Your task to perform on an android device: Is it going to rain today? Image 0: 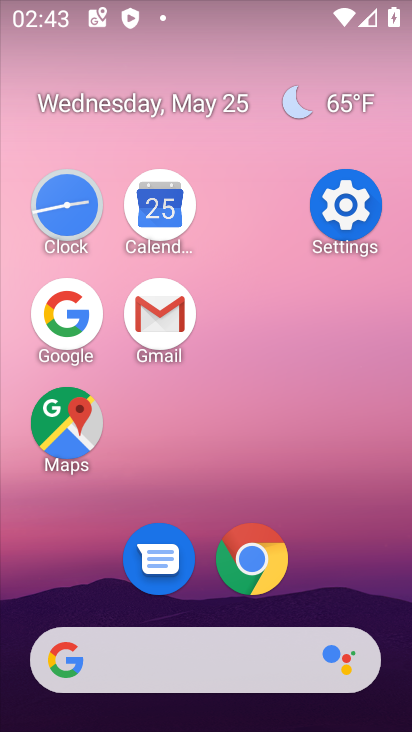
Step 0: click (63, 317)
Your task to perform on an android device: Is it going to rain today? Image 1: 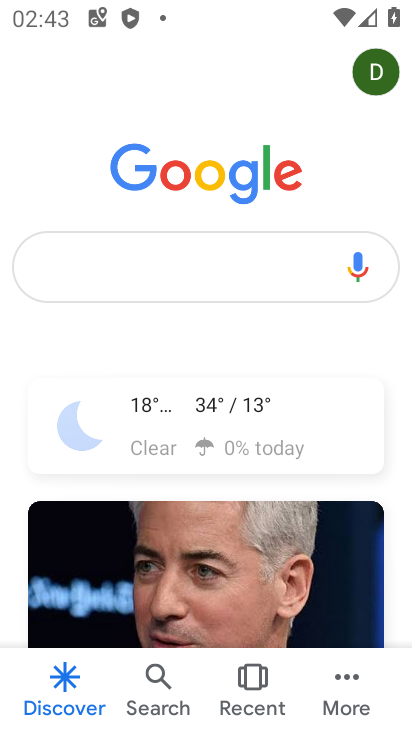
Step 1: click (227, 417)
Your task to perform on an android device: Is it going to rain today? Image 2: 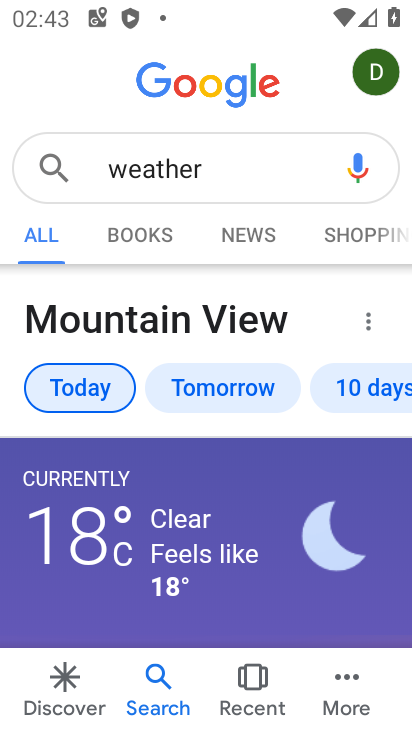
Step 2: task complete